Your task to perform on an android device: delete the emails in spam in the gmail app Image 0: 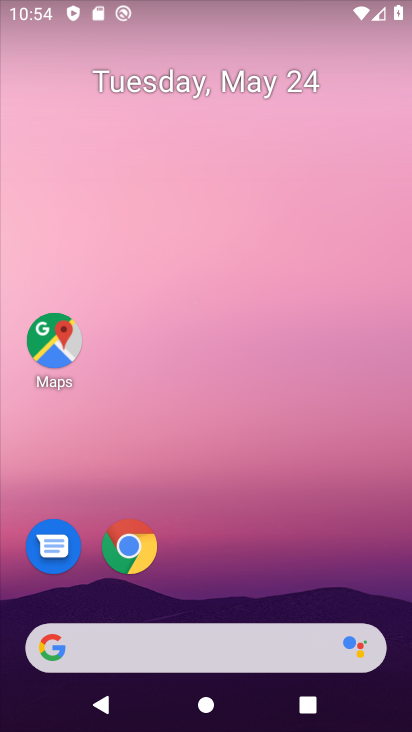
Step 0: drag from (250, 614) to (254, 38)
Your task to perform on an android device: delete the emails in spam in the gmail app Image 1: 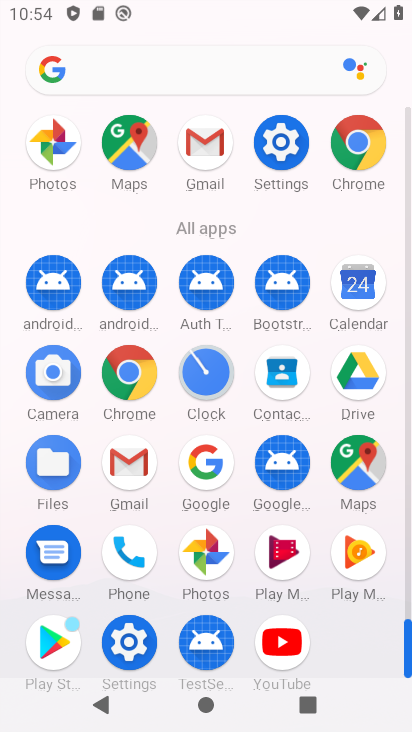
Step 1: click (192, 132)
Your task to perform on an android device: delete the emails in spam in the gmail app Image 2: 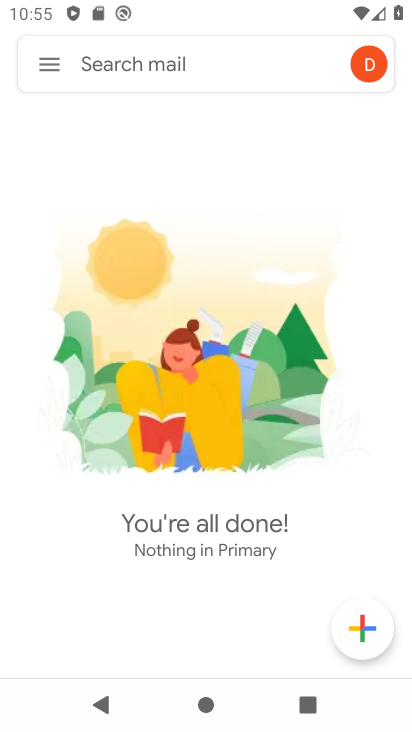
Step 2: click (53, 64)
Your task to perform on an android device: delete the emails in spam in the gmail app Image 3: 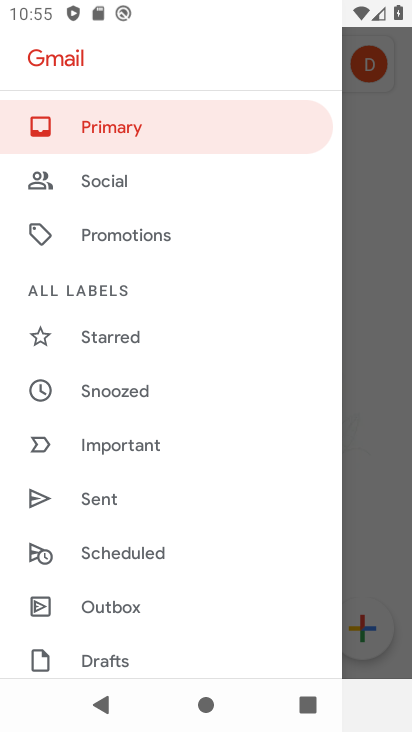
Step 3: drag from (164, 559) to (201, 251)
Your task to perform on an android device: delete the emails in spam in the gmail app Image 4: 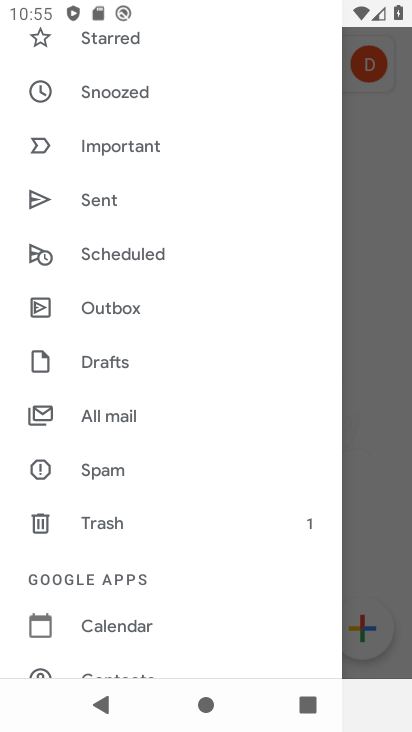
Step 4: click (111, 469)
Your task to perform on an android device: delete the emails in spam in the gmail app Image 5: 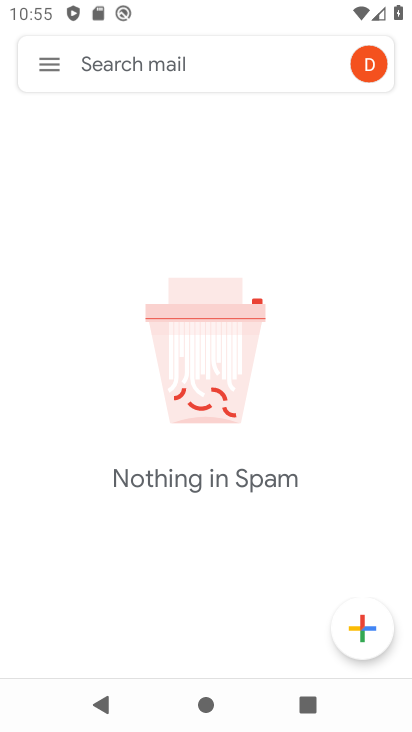
Step 5: task complete